Your task to perform on an android device: toggle improve location accuracy Image 0: 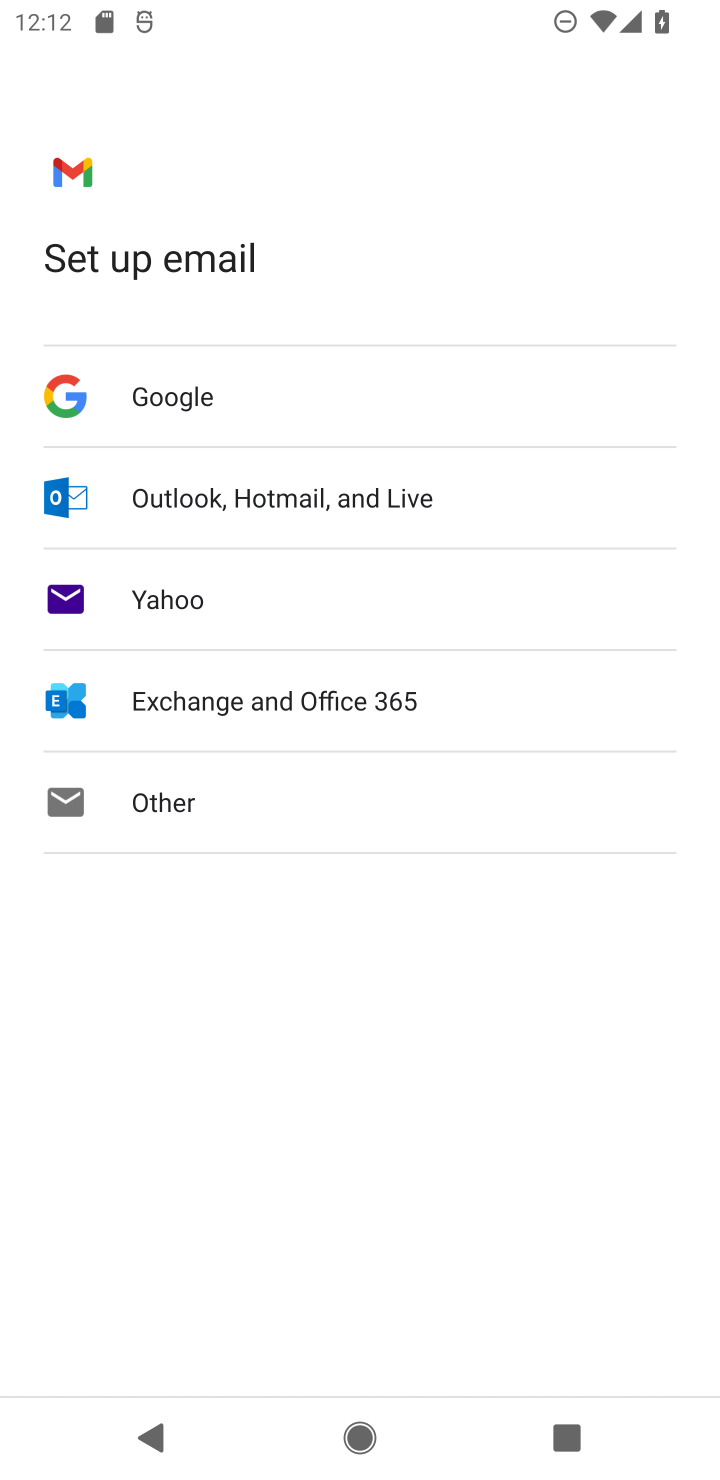
Step 0: press home button
Your task to perform on an android device: toggle improve location accuracy Image 1: 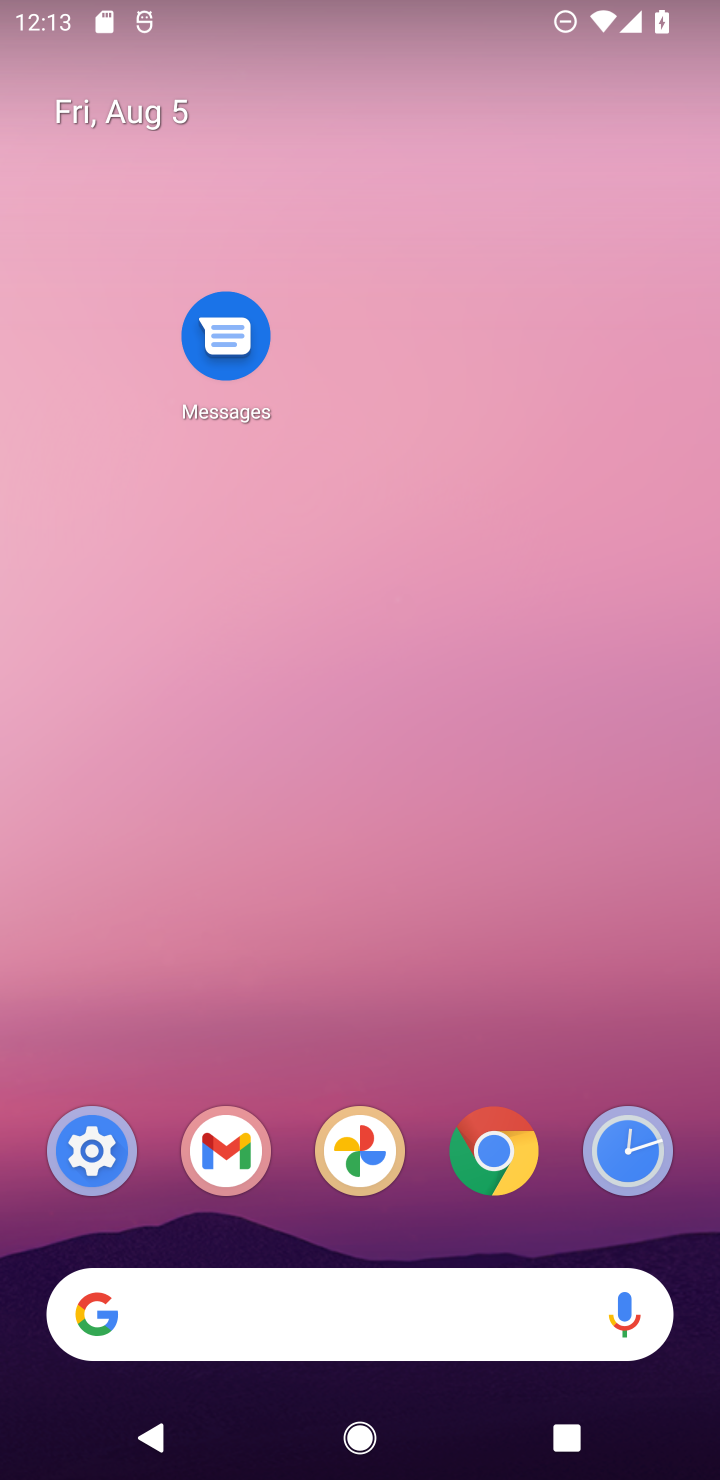
Step 1: click (88, 1142)
Your task to perform on an android device: toggle improve location accuracy Image 2: 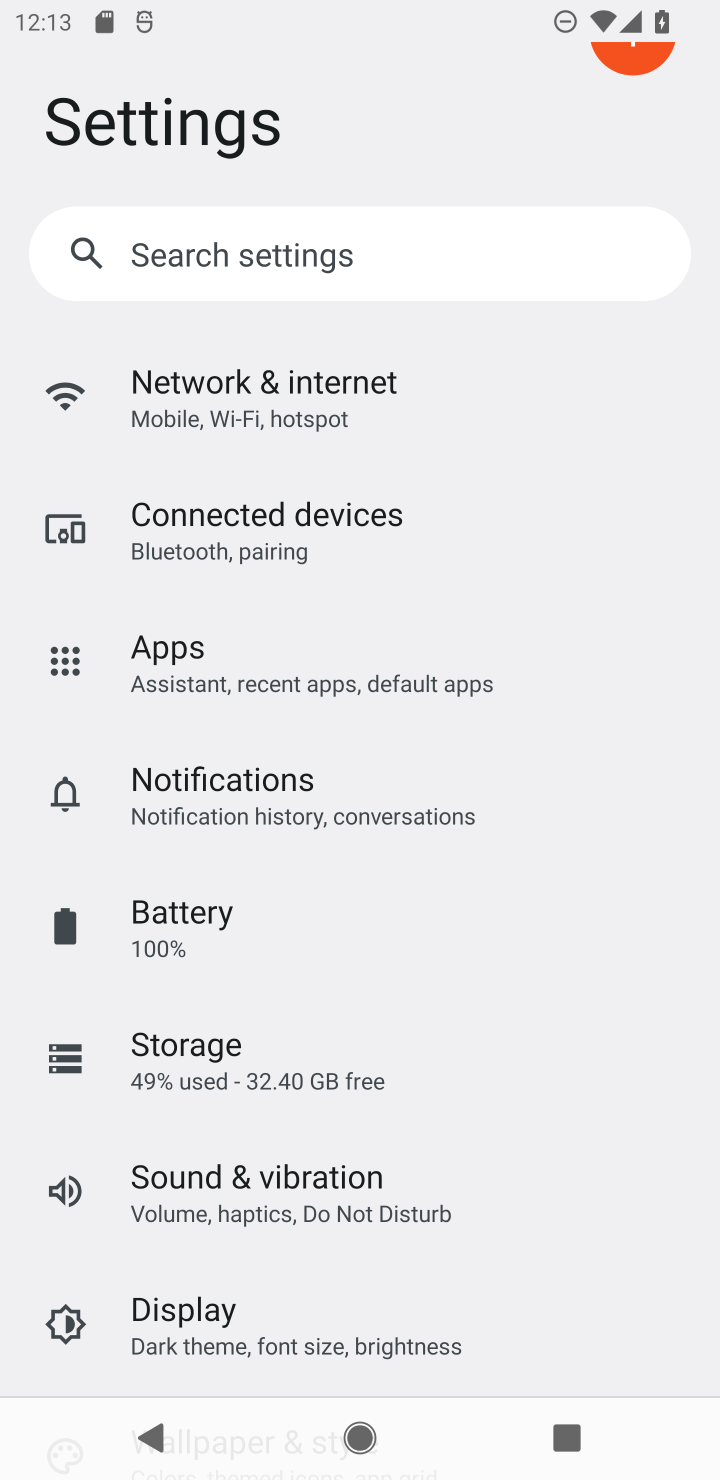
Step 2: drag from (250, 1166) to (309, 564)
Your task to perform on an android device: toggle improve location accuracy Image 3: 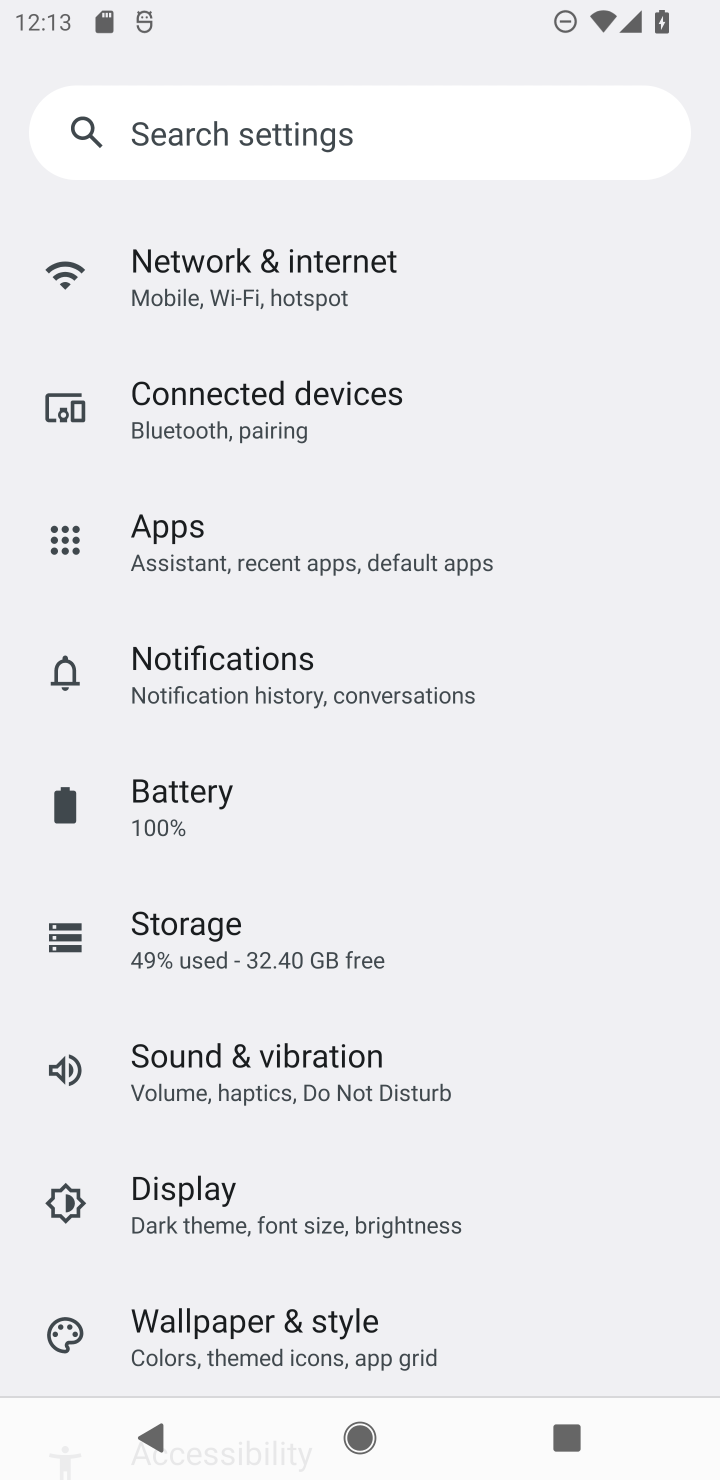
Step 3: drag from (227, 1176) to (313, 566)
Your task to perform on an android device: toggle improve location accuracy Image 4: 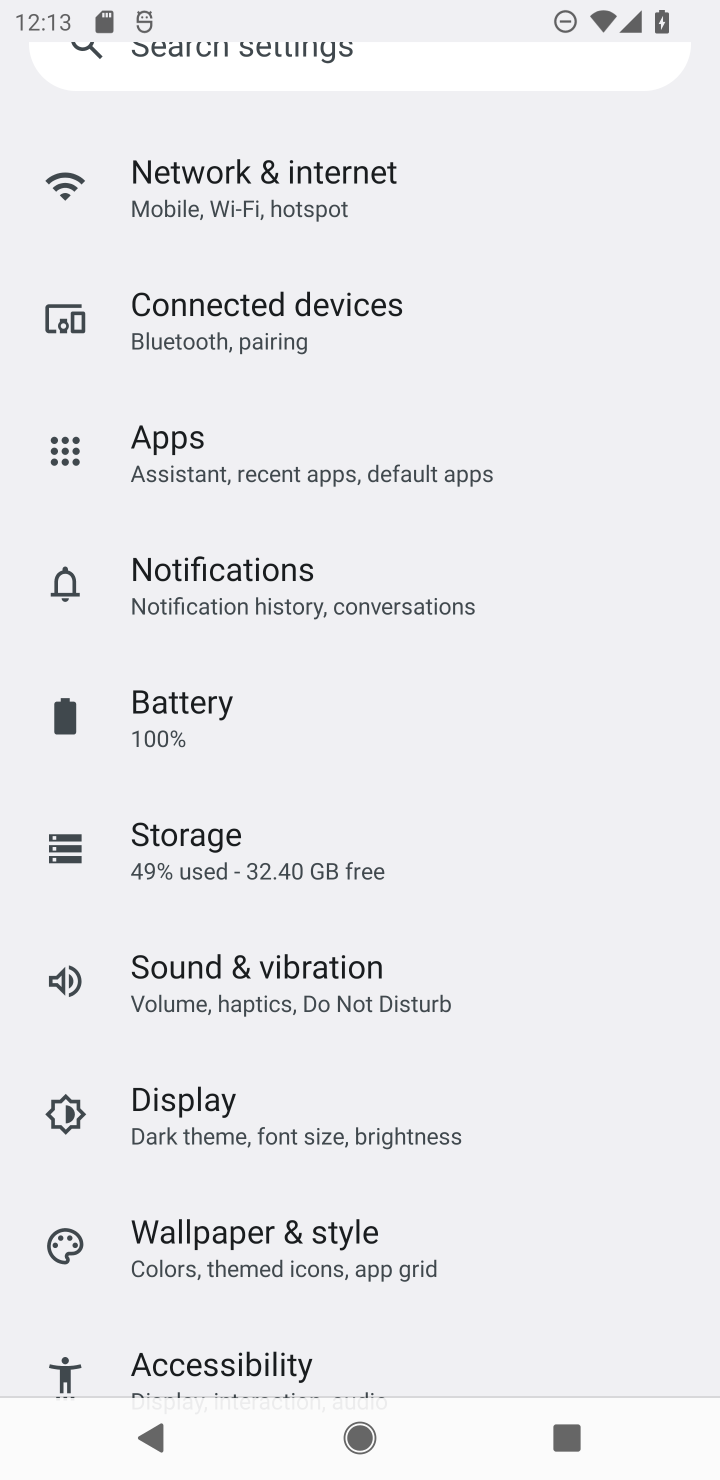
Step 4: drag from (271, 914) to (271, 474)
Your task to perform on an android device: toggle improve location accuracy Image 5: 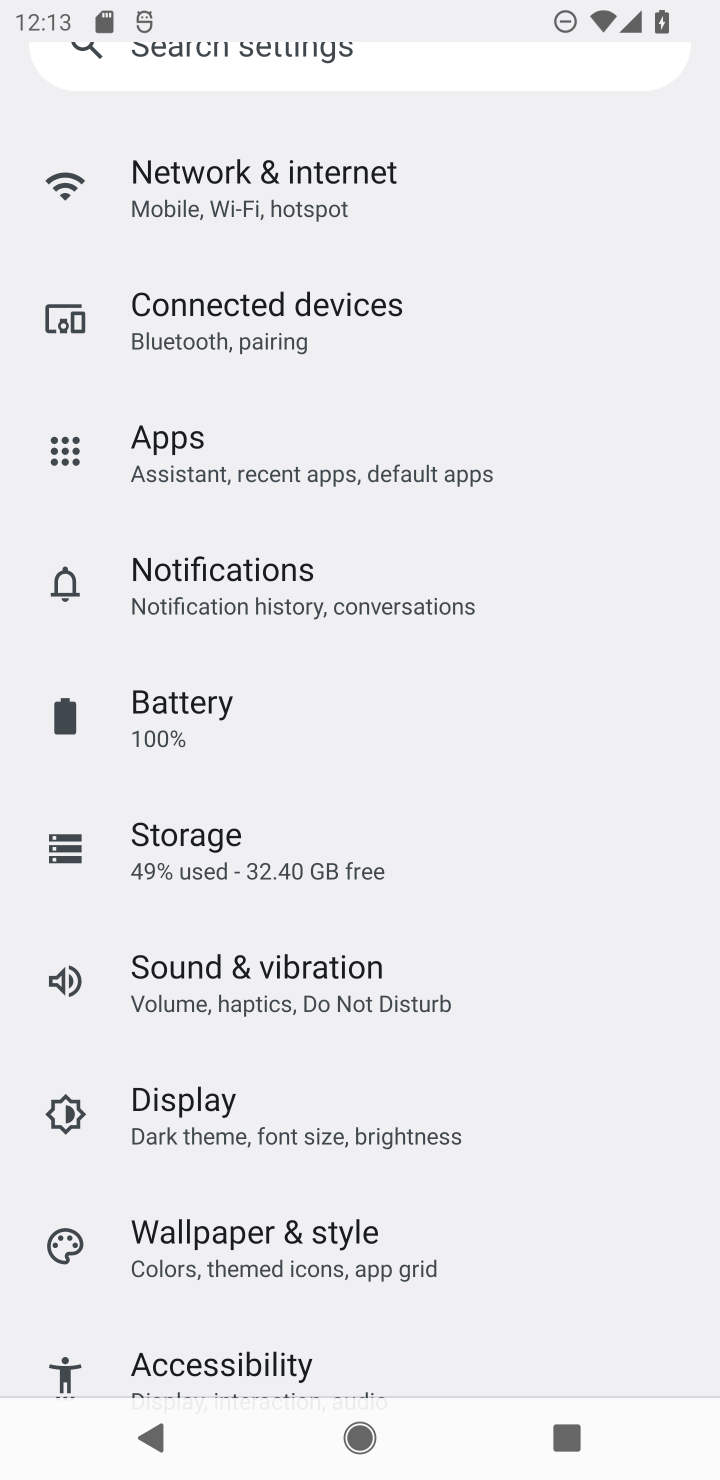
Step 5: drag from (243, 1114) to (375, 265)
Your task to perform on an android device: toggle improve location accuracy Image 6: 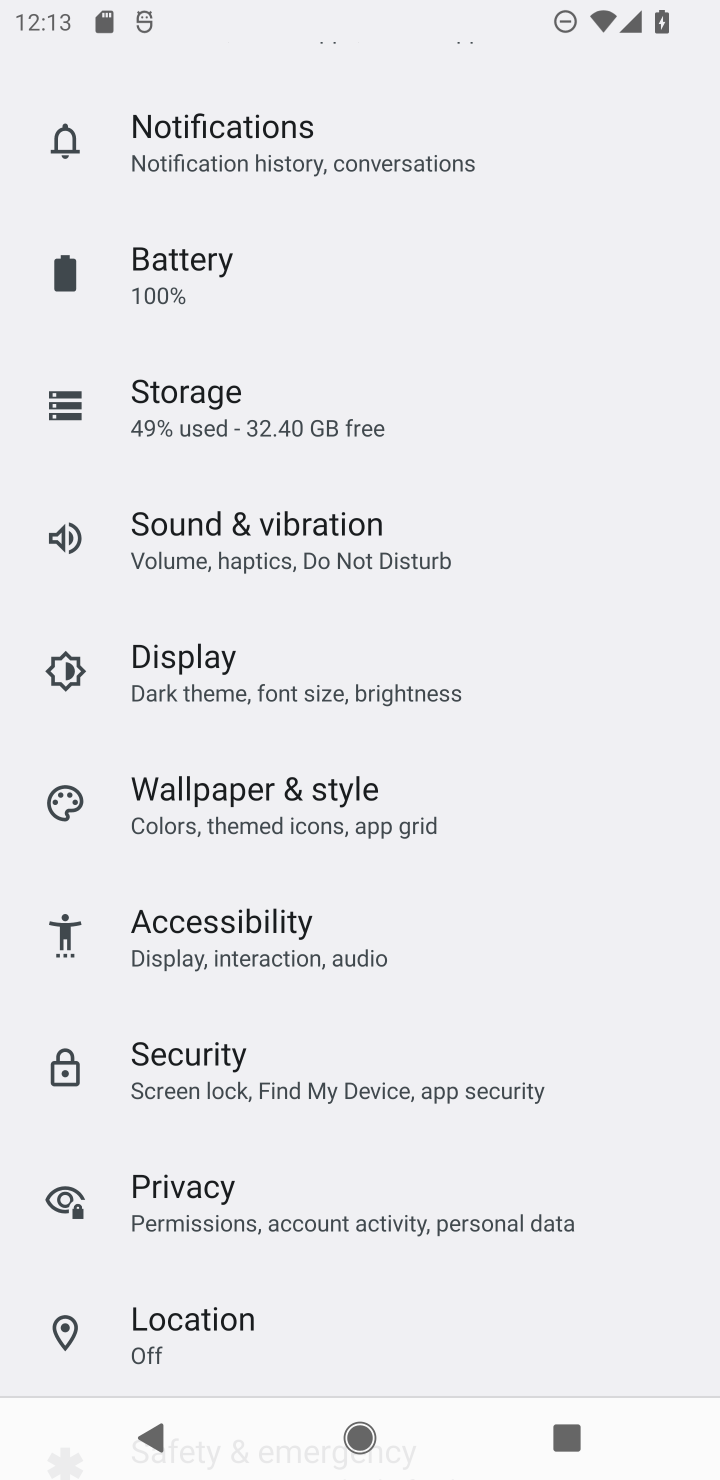
Step 6: drag from (330, 1058) to (629, 320)
Your task to perform on an android device: toggle improve location accuracy Image 7: 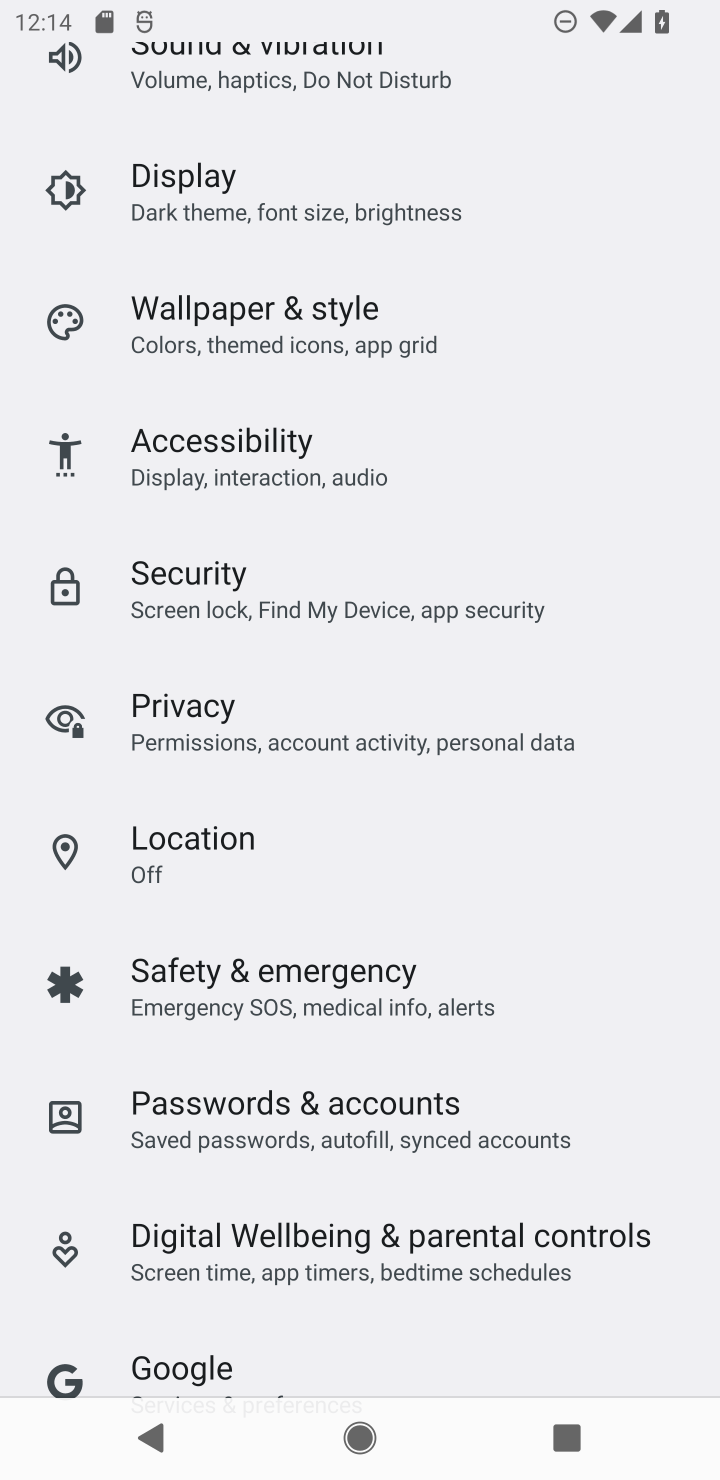
Step 7: click (181, 854)
Your task to perform on an android device: toggle improve location accuracy Image 8: 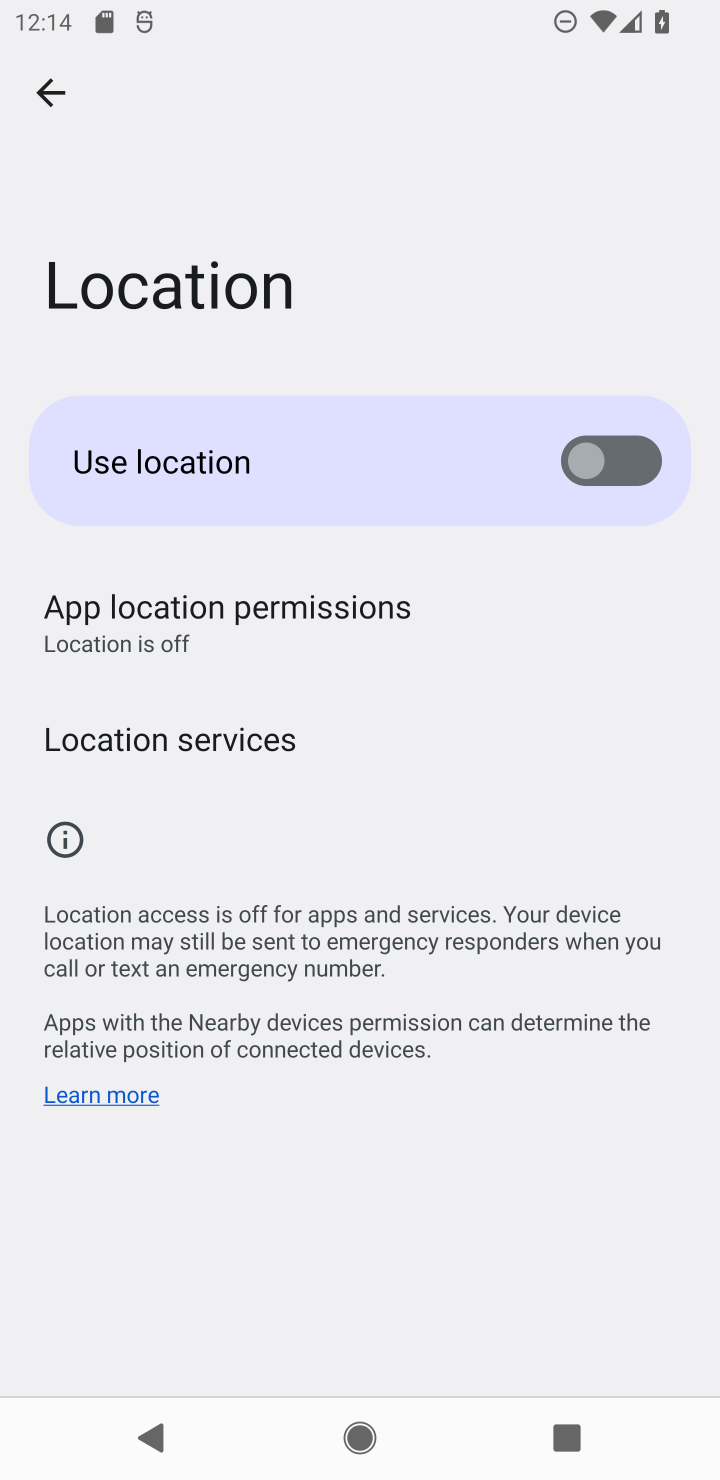
Step 8: click (195, 734)
Your task to perform on an android device: toggle improve location accuracy Image 9: 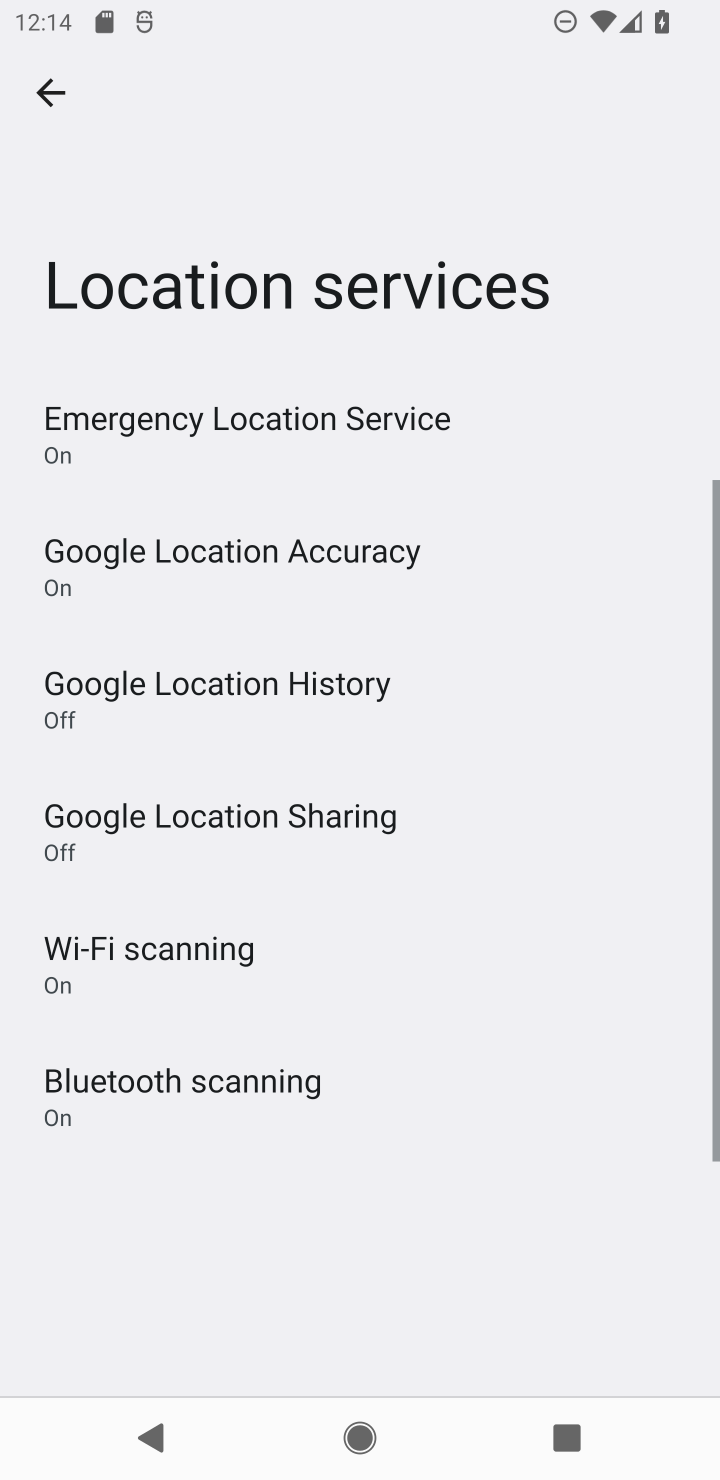
Step 9: click (323, 577)
Your task to perform on an android device: toggle improve location accuracy Image 10: 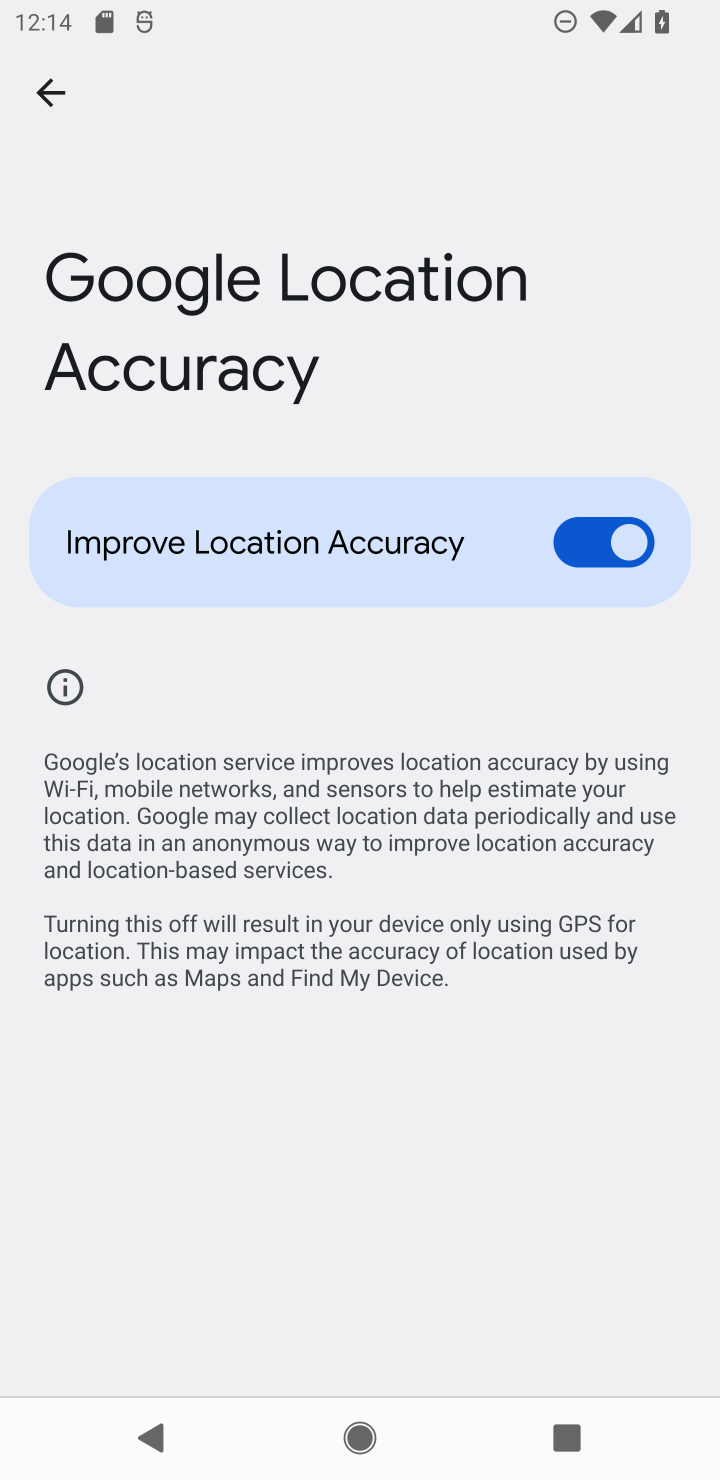
Step 10: click (560, 529)
Your task to perform on an android device: toggle improve location accuracy Image 11: 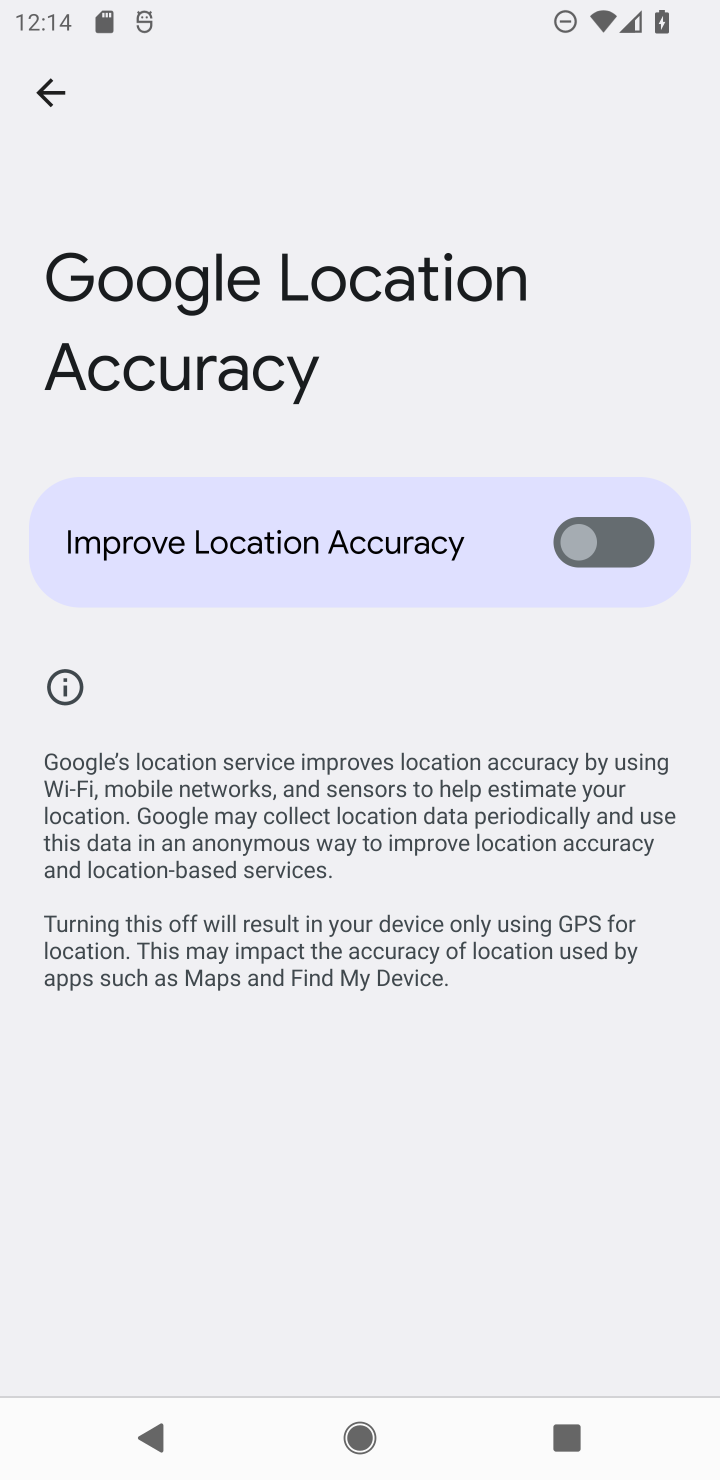
Step 11: task complete